Your task to perform on an android device: turn smart compose on in the gmail app Image 0: 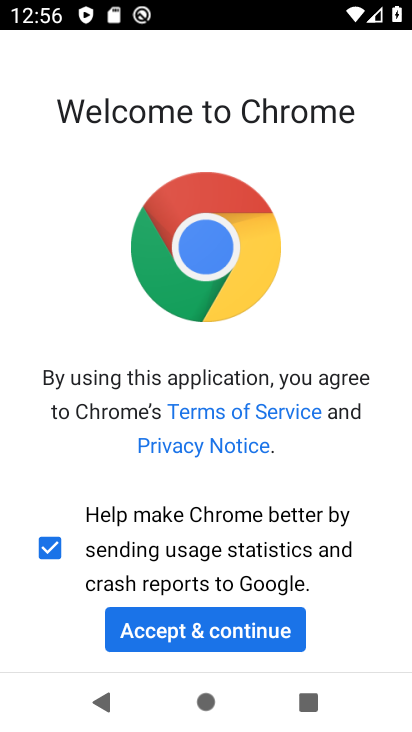
Step 0: press home button
Your task to perform on an android device: turn smart compose on in the gmail app Image 1: 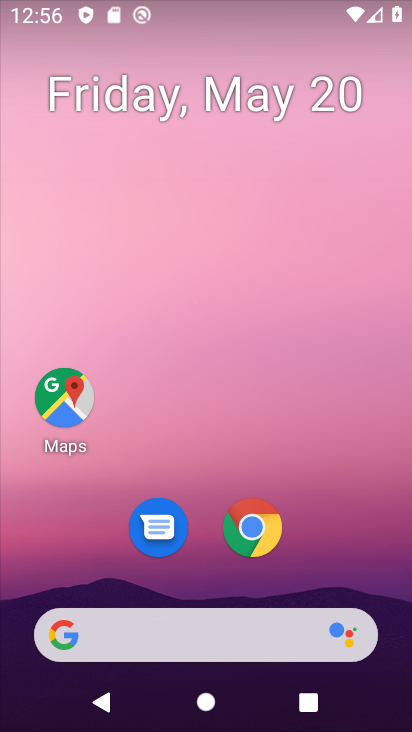
Step 1: drag from (216, 592) to (242, 31)
Your task to perform on an android device: turn smart compose on in the gmail app Image 2: 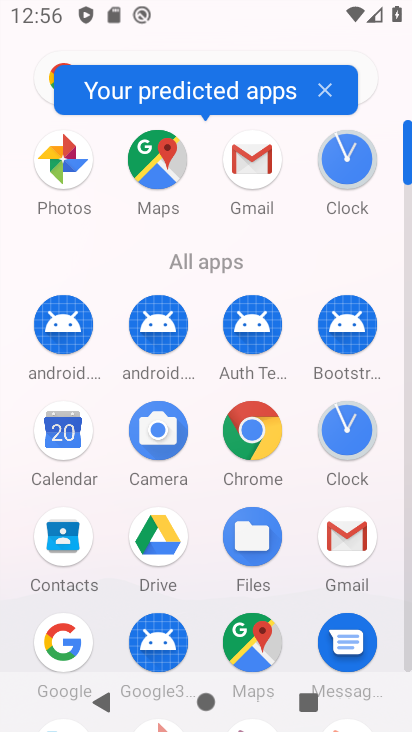
Step 2: click (250, 153)
Your task to perform on an android device: turn smart compose on in the gmail app Image 3: 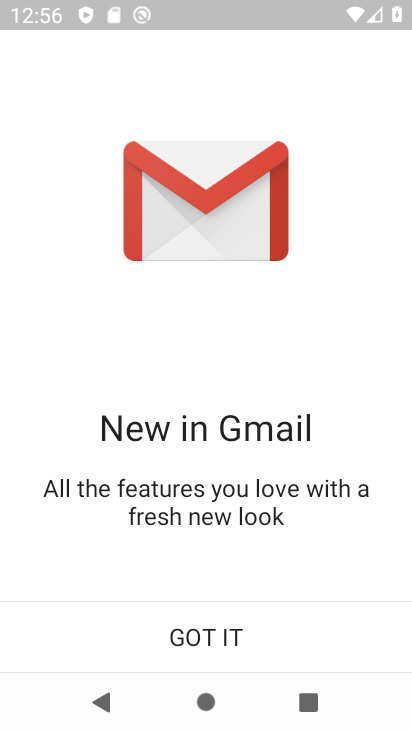
Step 3: click (223, 645)
Your task to perform on an android device: turn smart compose on in the gmail app Image 4: 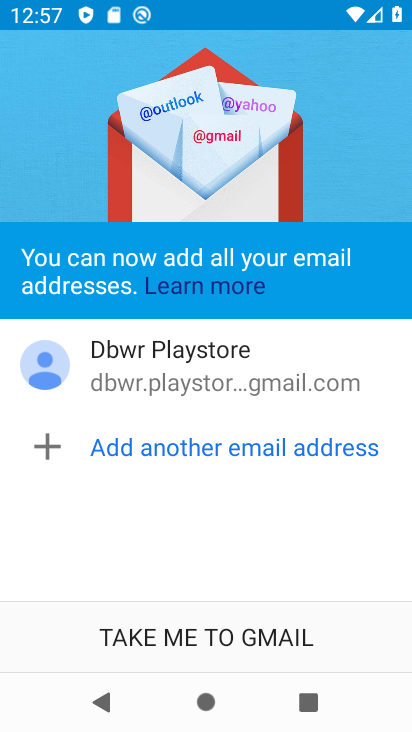
Step 4: click (203, 641)
Your task to perform on an android device: turn smart compose on in the gmail app Image 5: 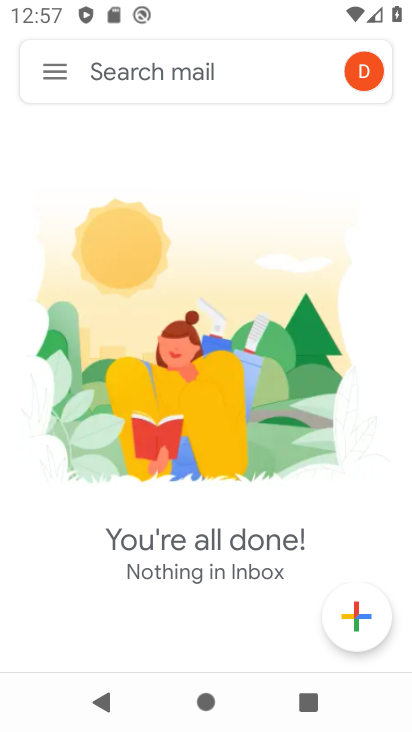
Step 5: click (55, 71)
Your task to perform on an android device: turn smart compose on in the gmail app Image 6: 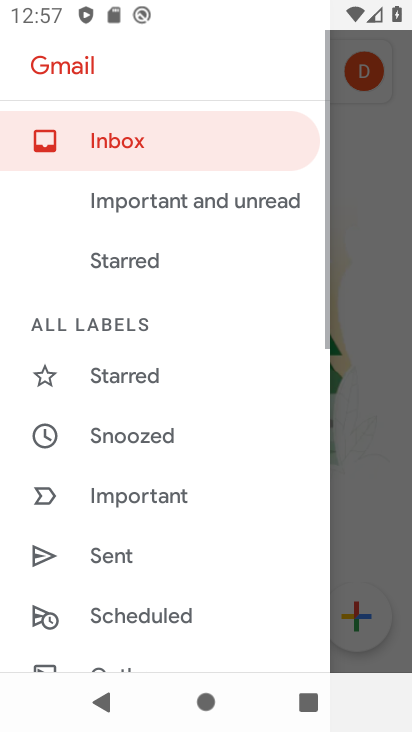
Step 6: drag from (156, 632) to (214, 137)
Your task to perform on an android device: turn smart compose on in the gmail app Image 7: 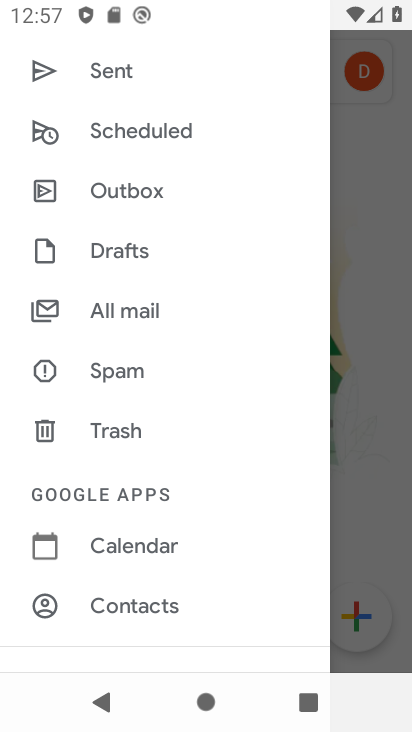
Step 7: click (168, 300)
Your task to perform on an android device: turn smart compose on in the gmail app Image 8: 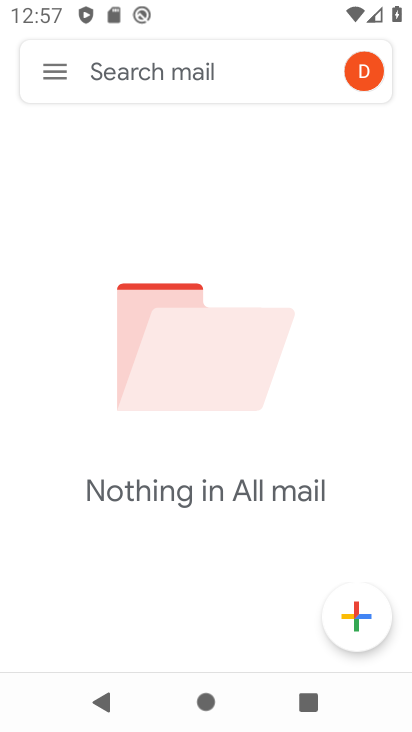
Step 8: click (58, 79)
Your task to perform on an android device: turn smart compose on in the gmail app Image 9: 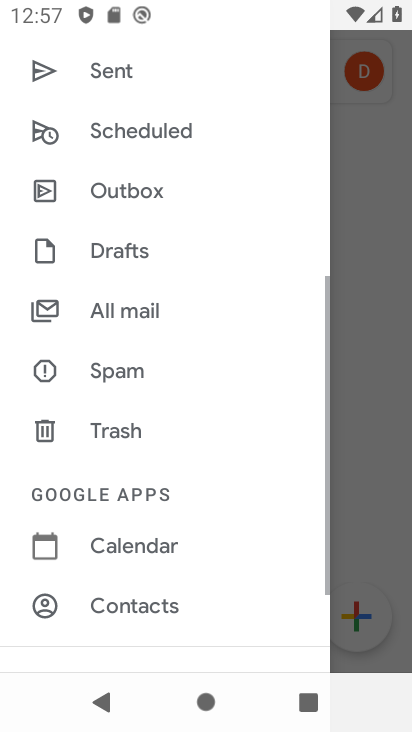
Step 9: drag from (167, 616) to (171, 101)
Your task to perform on an android device: turn smart compose on in the gmail app Image 10: 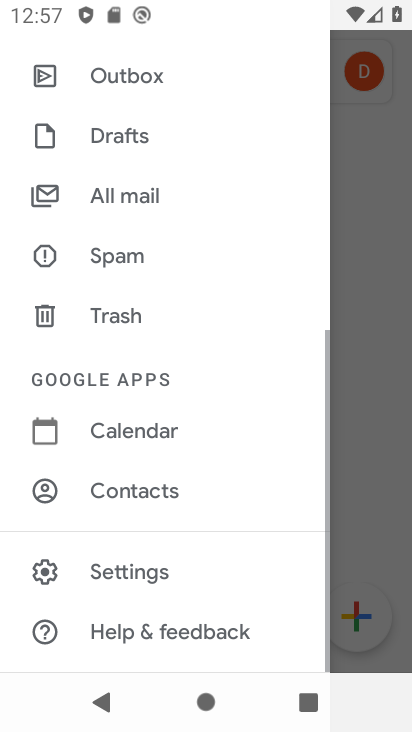
Step 10: click (181, 568)
Your task to perform on an android device: turn smart compose on in the gmail app Image 11: 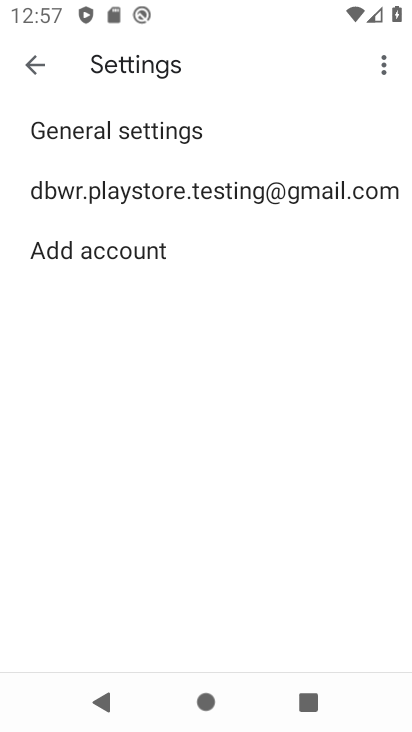
Step 11: click (258, 192)
Your task to perform on an android device: turn smart compose on in the gmail app Image 12: 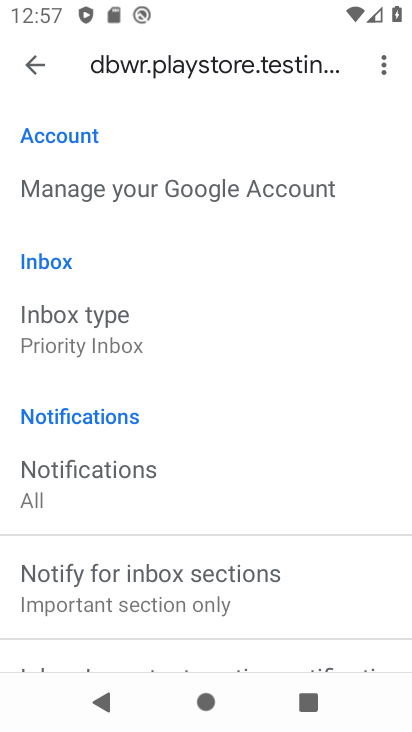
Step 12: task complete